Your task to perform on an android device: Go to Maps Image 0: 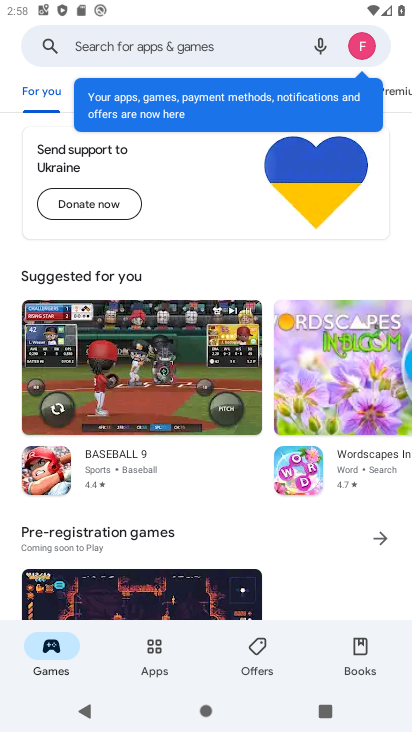
Step 0: press home button
Your task to perform on an android device: Go to Maps Image 1: 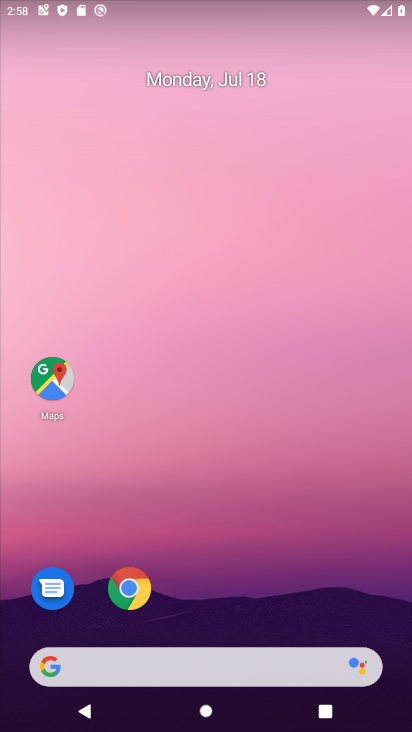
Step 1: drag from (218, 632) to (223, 32)
Your task to perform on an android device: Go to Maps Image 2: 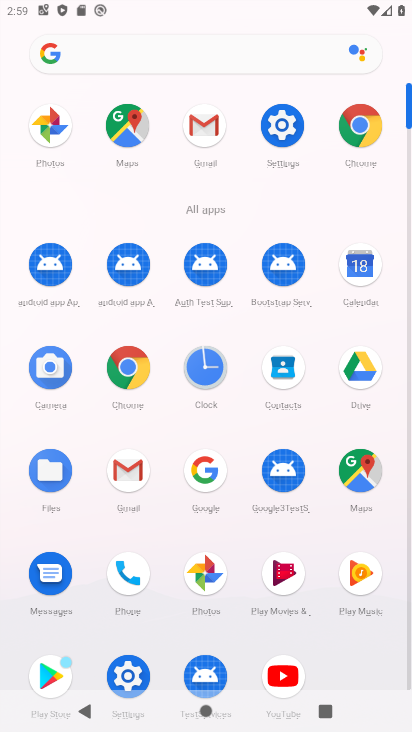
Step 2: click (116, 117)
Your task to perform on an android device: Go to Maps Image 3: 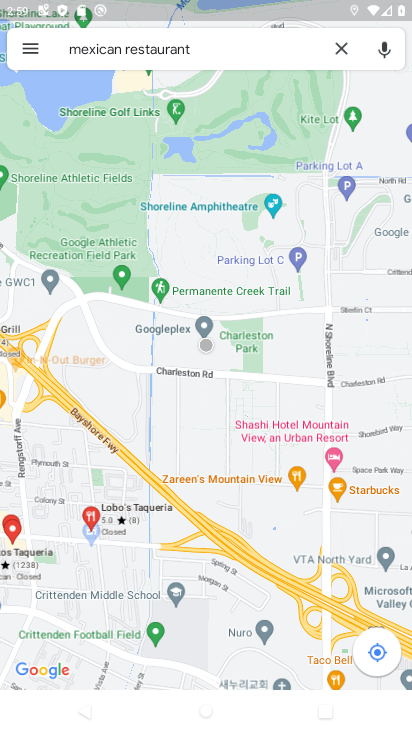
Step 3: task complete